Your task to perform on an android device: find snoozed emails in the gmail app Image 0: 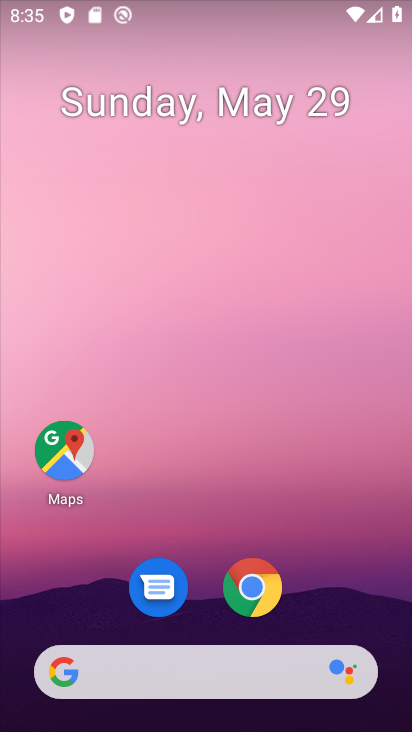
Step 0: drag from (182, 618) to (257, 157)
Your task to perform on an android device: find snoozed emails in the gmail app Image 1: 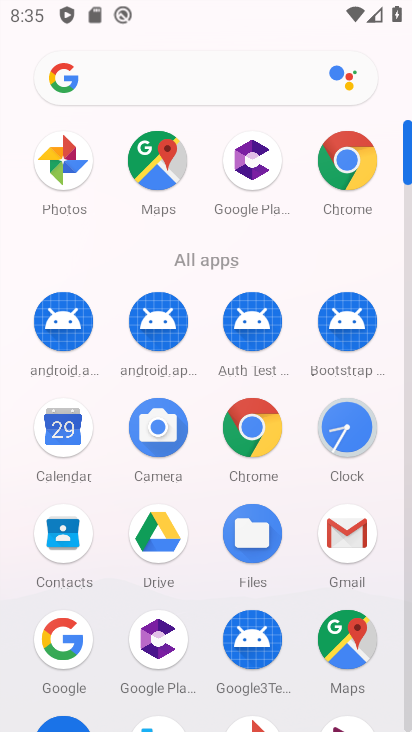
Step 1: click (345, 541)
Your task to perform on an android device: find snoozed emails in the gmail app Image 2: 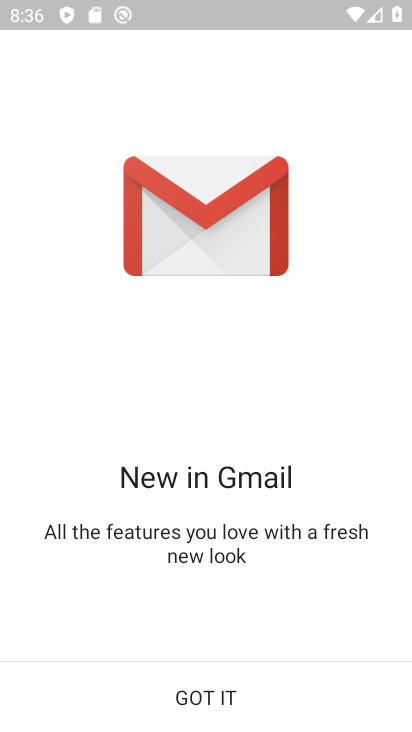
Step 2: click (210, 717)
Your task to perform on an android device: find snoozed emails in the gmail app Image 3: 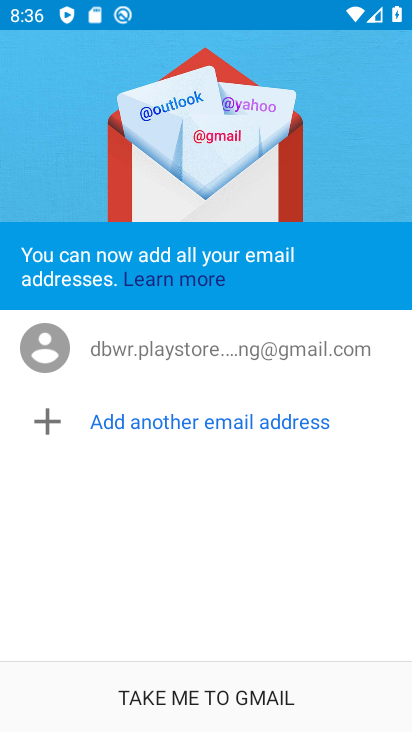
Step 3: click (219, 702)
Your task to perform on an android device: find snoozed emails in the gmail app Image 4: 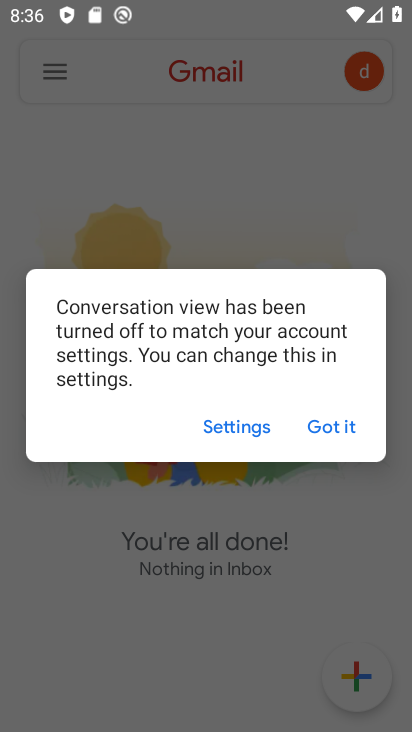
Step 4: click (330, 425)
Your task to perform on an android device: find snoozed emails in the gmail app Image 5: 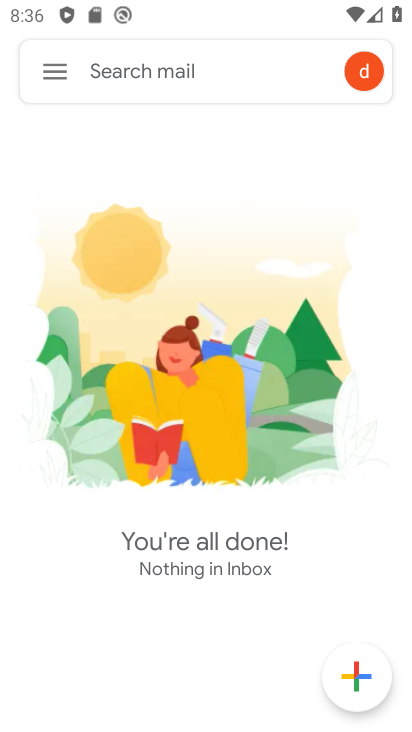
Step 5: click (48, 68)
Your task to perform on an android device: find snoozed emails in the gmail app Image 6: 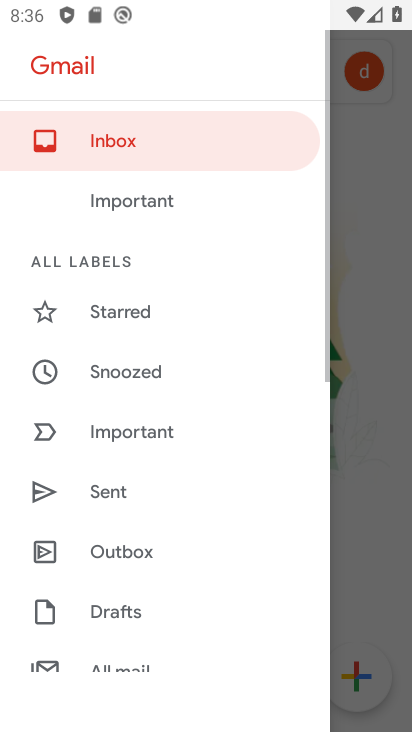
Step 6: click (111, 388)
Your task to perform on an android device: find snoozed emails in the gmail app Image 7: 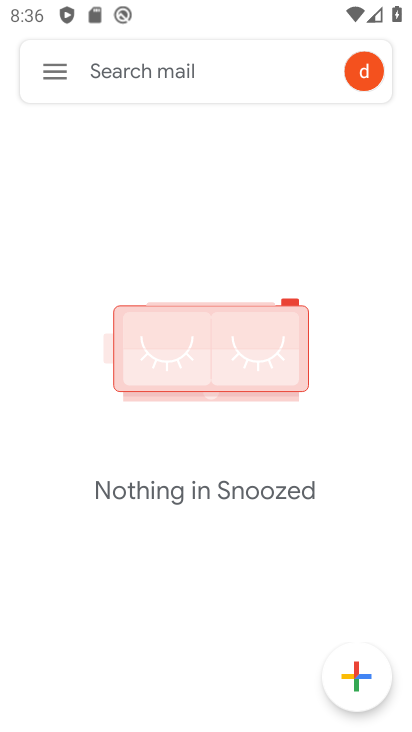
Step 7: task complete